Your task to perform on an android device: Go to Google maps Image 0: 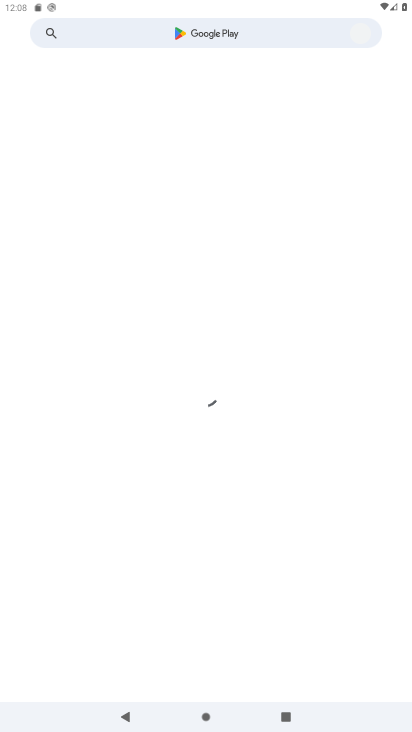
Step 0: press home button
Your task to perform on an android device: Go to Google maps Image 1: 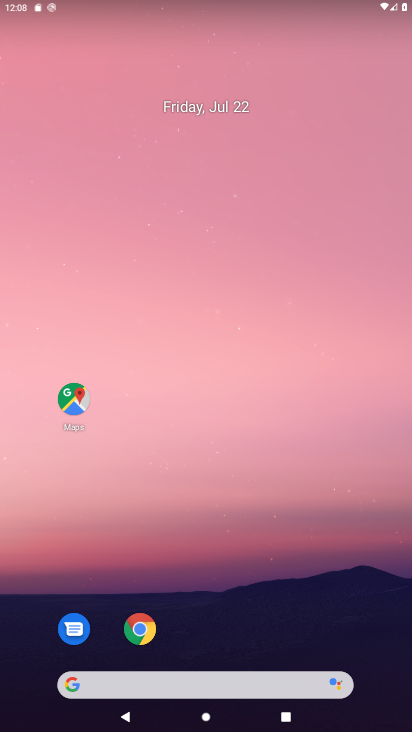
Step 1: click (74, 401)
Your task to perform on an android device: Go to Google maps Image 2: 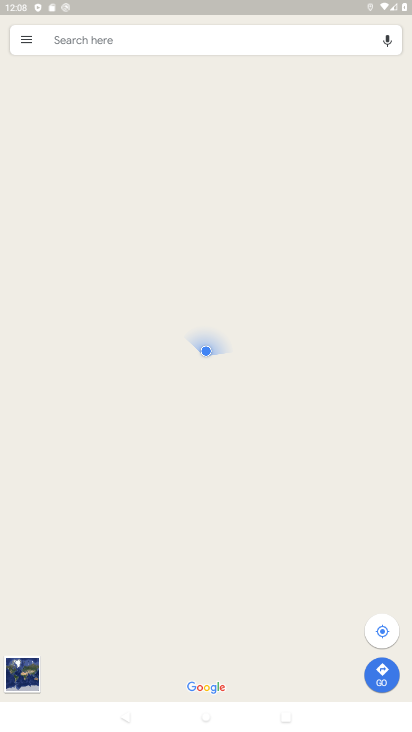
Step 2: task complete